Your task to perform on an android device: see sites visited before in the chrome app Image 0: 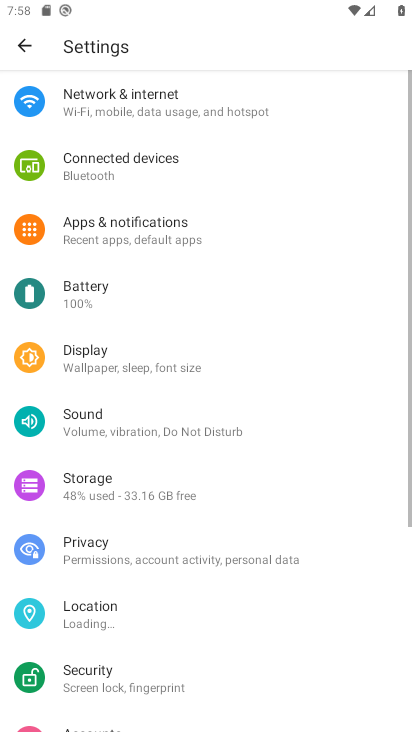
Step 0: press home button
Your task to perform on an android device: see sites visited before in the chrome app Image 1: 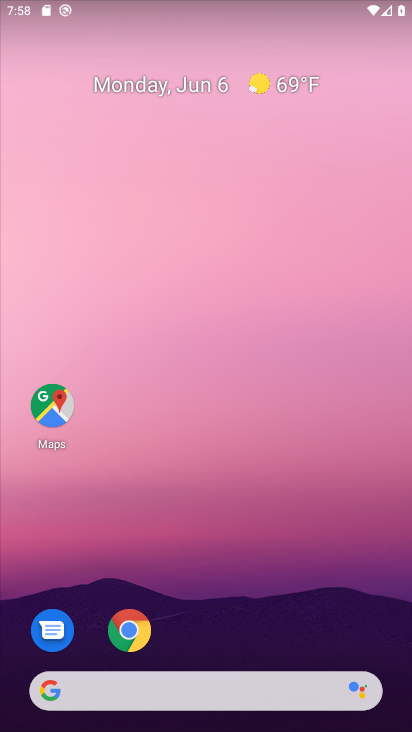
Step 1: click (124, 639)
Your task to perform on an android device: see sites visited before in the chrome app Image 2: 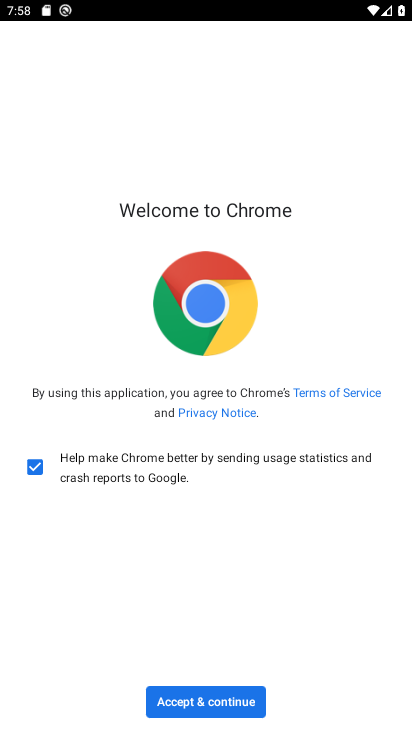
Step 2: click (218, 698)
Your task to perform on an android device: see sites visited before in the chrome app Image 3: 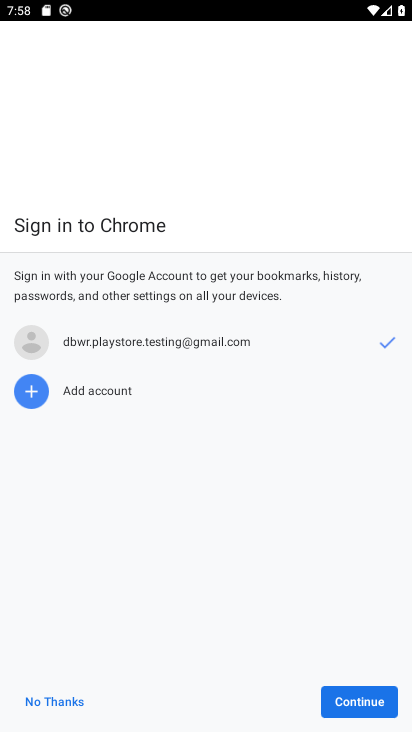
Step 3: click (328, 698)
Your task to perform on an android device: see sites visited before in the chrome app Image 4: 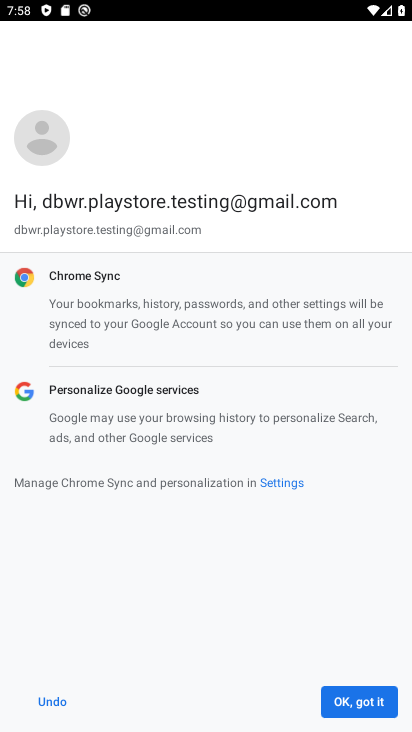
Step 4: click (380, 707)
Your task to perform on an android device: see sites visited before in the chrome app Image 5: 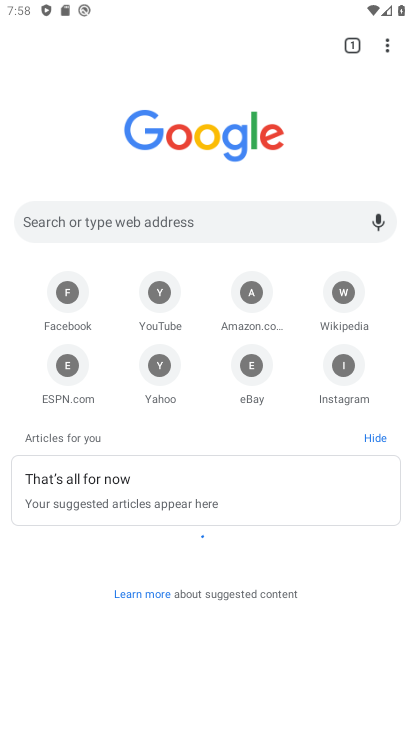
Step 5: task complete